Your task to perform on an android device: Search for pizza restaurants on Maps Image 0: 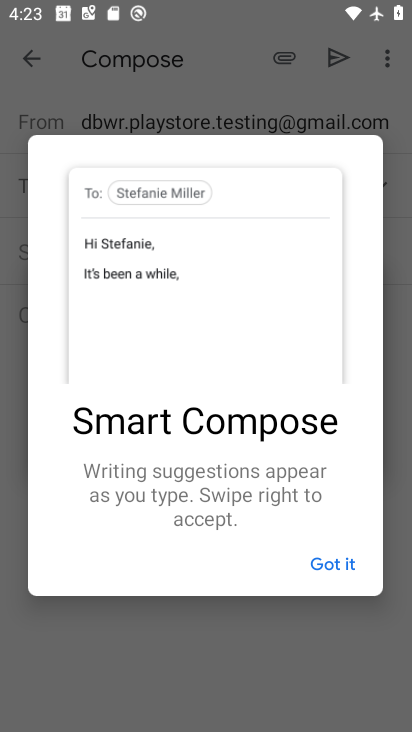
Step 0: press home button
Your task to perform on an android device: Search for pizza restaurants on Maps Image 1: 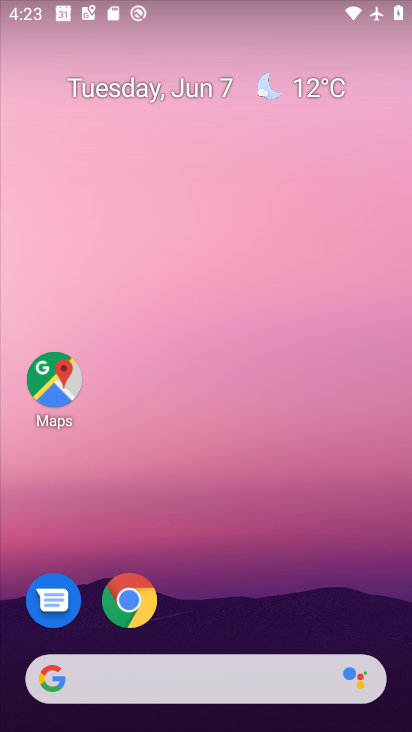
Step 1: drag from (274, 626) to (229, 192)
Your task to perform on an android device: Search for pizza restaurants on Maps Image 2: 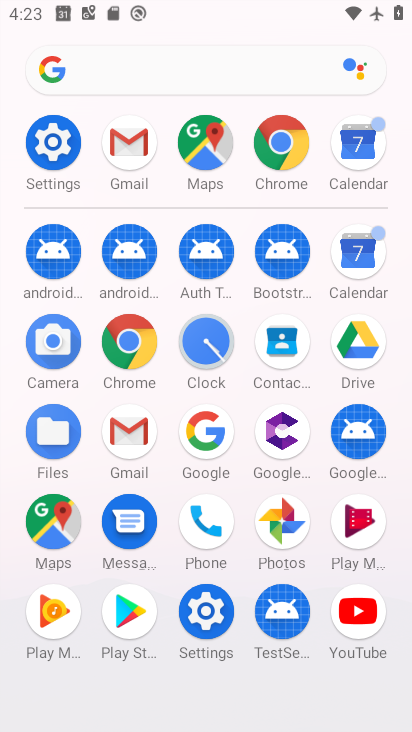
Step 2: click (215, 158)
Your task to perform on an android device: Search for pizza restaurants on Maps Image 3: 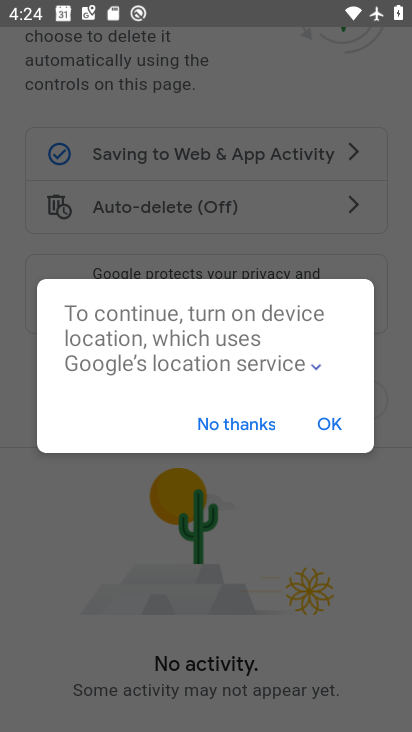
Step 3: press home button
Your task to perform on an android device: Search for pizza restaurants on Maps Image 4: 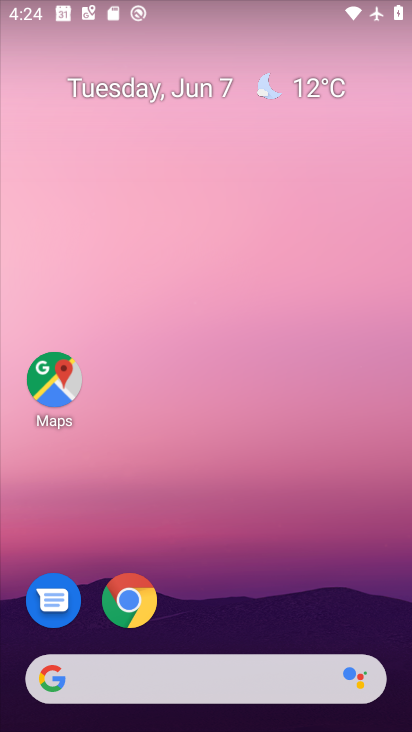
Step 4: click (64, 372)
Your task to perform on an android device: Search for pizza restaurants on Maps Image 5: 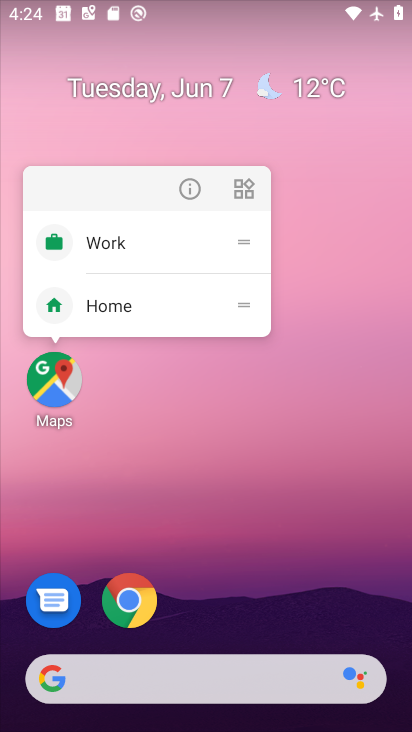
Step 5: click (61, 373)
Your task to perform on an android device: Search for pizza restaurants on Maps Image 6: 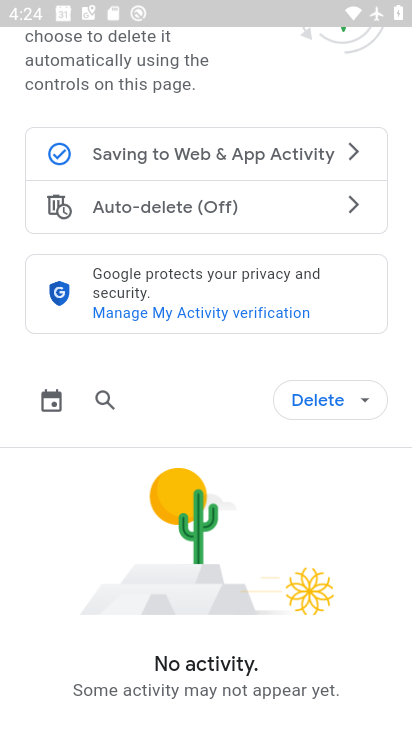
Step 6: press back button
Your task to perform on an android device: Search for pizza restaurants on Maps Image 7: 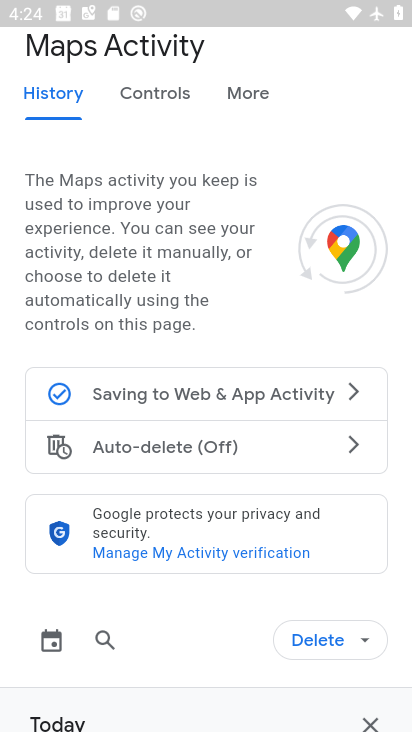
Step 7: press back button
Your task to perform on an android device: Search for pizza restaurants on Maps Image 8: 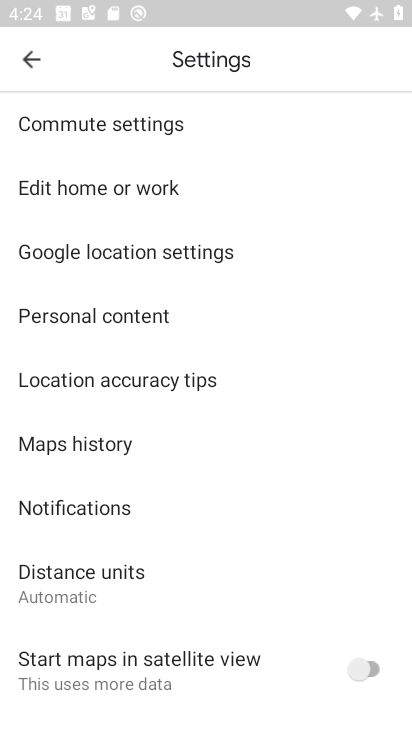
Step 8: press back button
Your task to perform on an android device: Search for pizza restaurants on Maps Image 9: 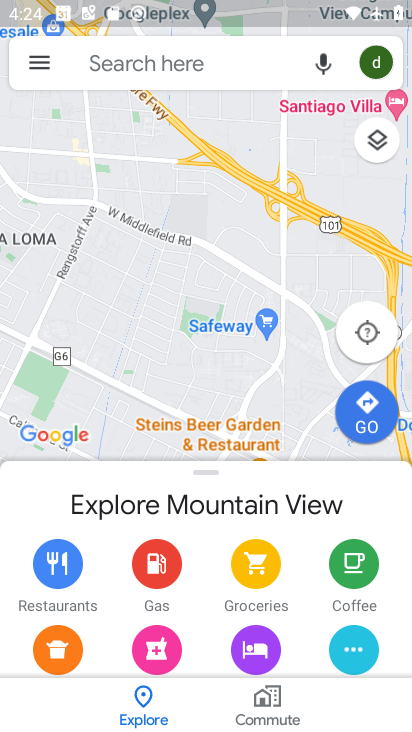
Step 9: click (275, 81)
Your task to perform on an android device: Search for pizza restaurants on Maps Image 10: 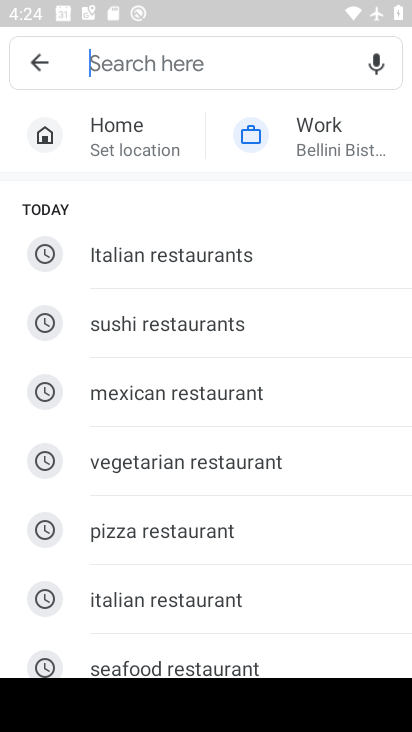
Step 10: type "pizza restaurants"
Your task to perform on an android device: Search for pizza restaurants on Maps Image 11: 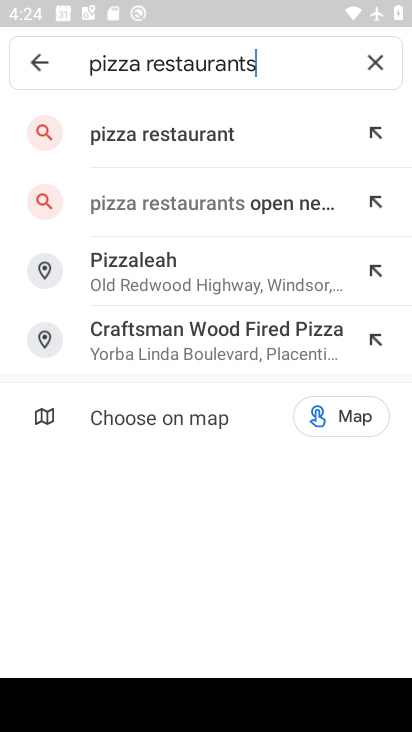
Step 11: press enter
Your task to perform on an android device: Search for pizza restaurants on Maps Image 12: 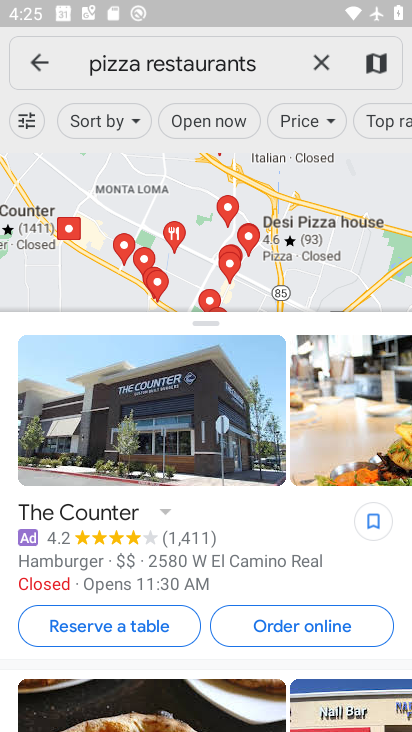
Step 12: task complete